Your task to perform on an android device: When is my next meeting? Image 0: 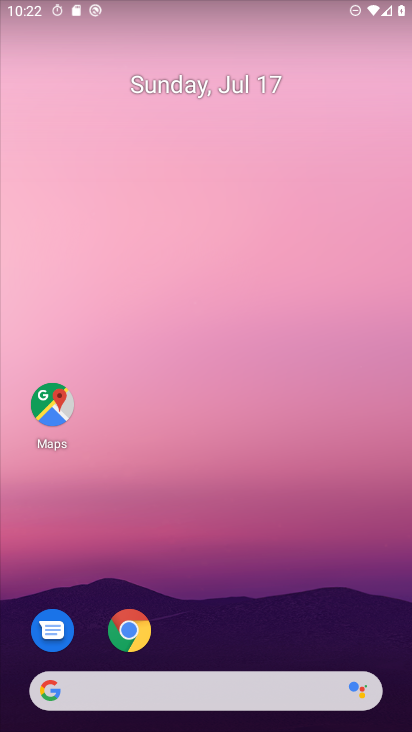
Step 0: drag from (207, 662) to (217, 168)
Your task to perform on an android device: When is my next meeting? Image 1: 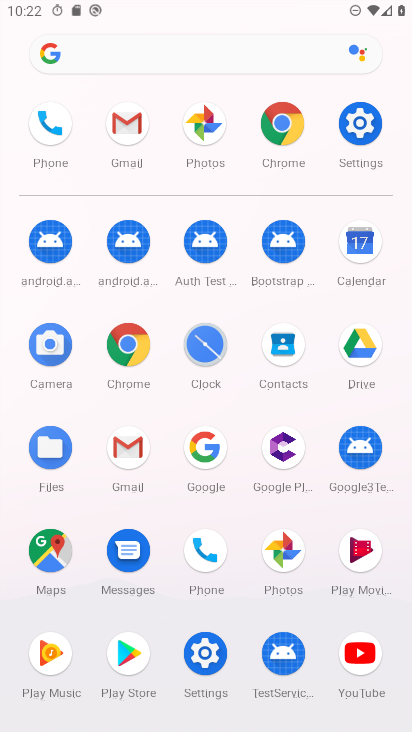
Step 1: click (347, 243)
Your task to perform on an android device: When is my next meeting? Image 2: 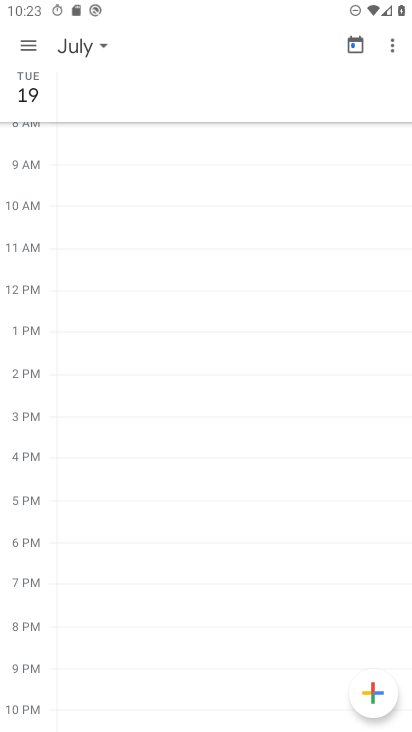
Step 2: click (37, 42)
Your task to perform on an android device: When is my next meeting? Image 3: 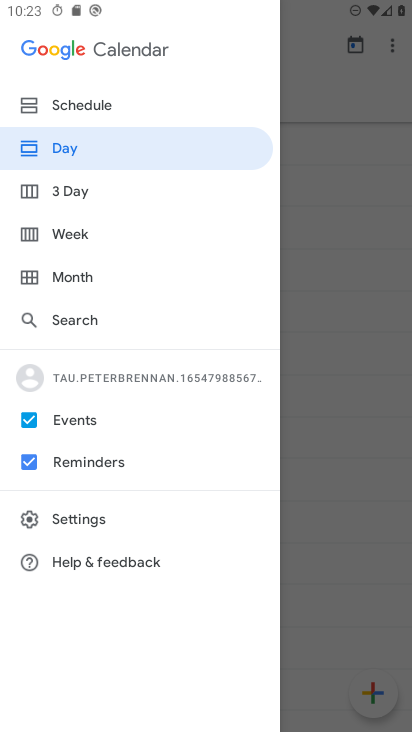
Step 3: click (73, 429)
Your task to perform on an android device: When is my next meeting? Image 4: 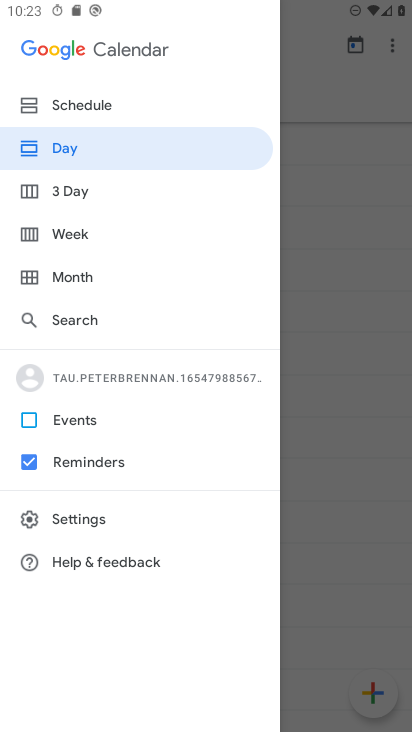
Step 4: click (73, 429)
Your task to perform on an android device: When is my next meeting? Image 5: 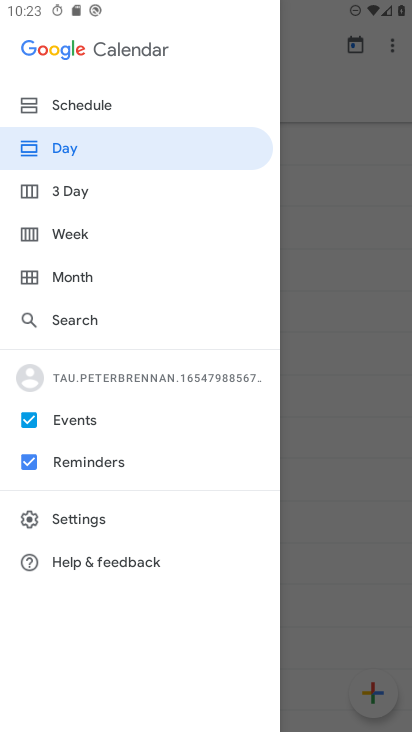
Step 5: click (73, 429)
Your task to perform on an android device: When is my next meeting? Image 6: 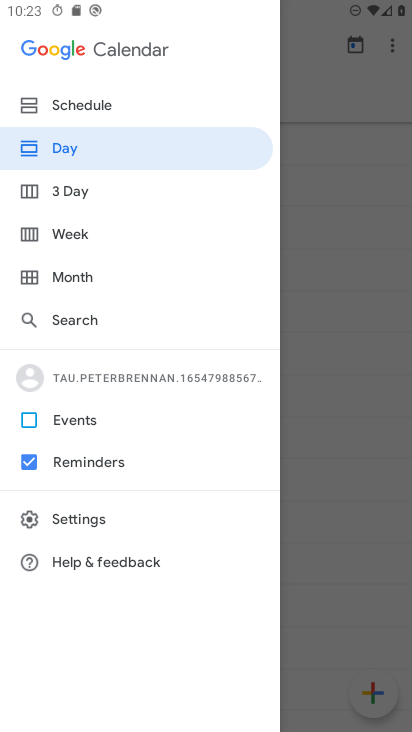
Step 6: task complete